Your task to perform on an android device: Go to Yahoo.com Image 0: 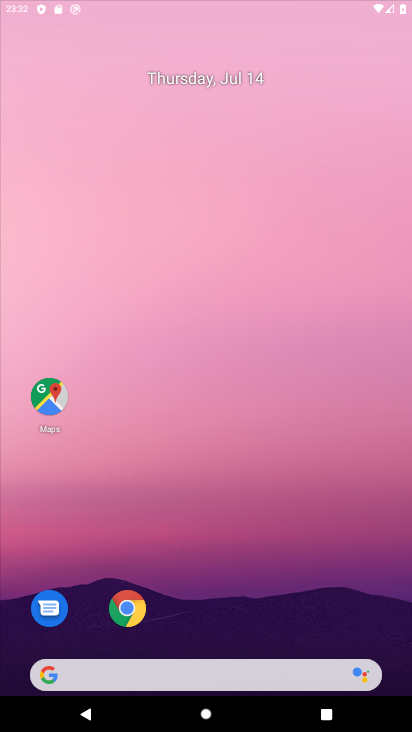
Step 0: click (88, 663)
Your task to perform on an android device: Go to Yahoo.com Image 1: 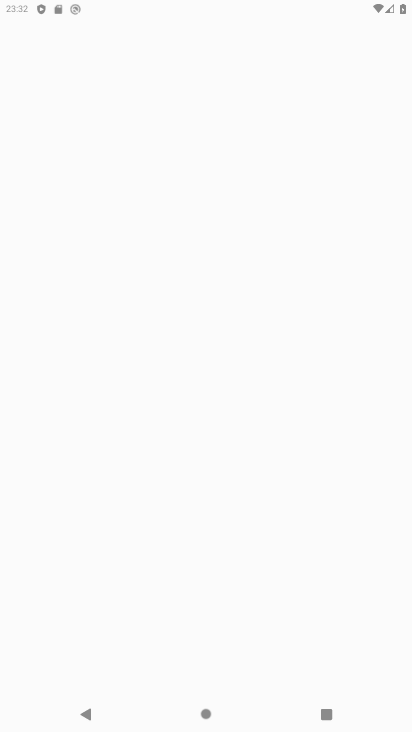
Step 1: click (91, 667)
Your task to perform on an android device: Go to Yahoo.com Image 2: 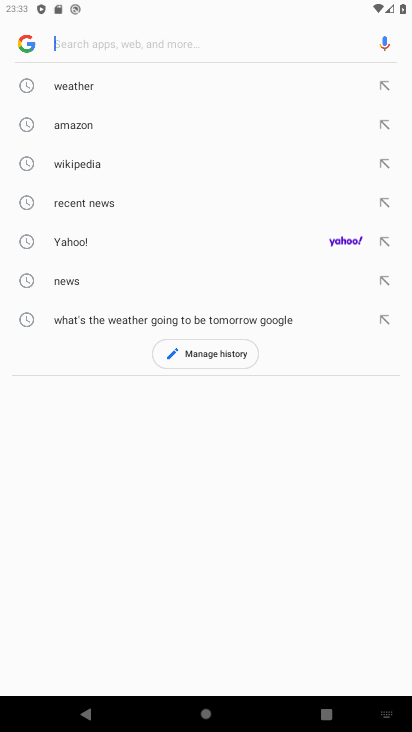
Step 2: type "Yahoo.com"
Your task to perform on an android device: Go to Yahoo.com Image 3: 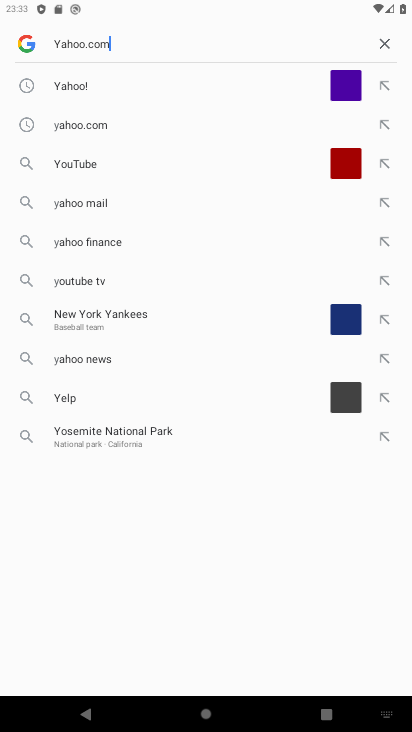
Step 3: type ""
Your task to perform on an android device: Go to Yahoo.com Image 4: 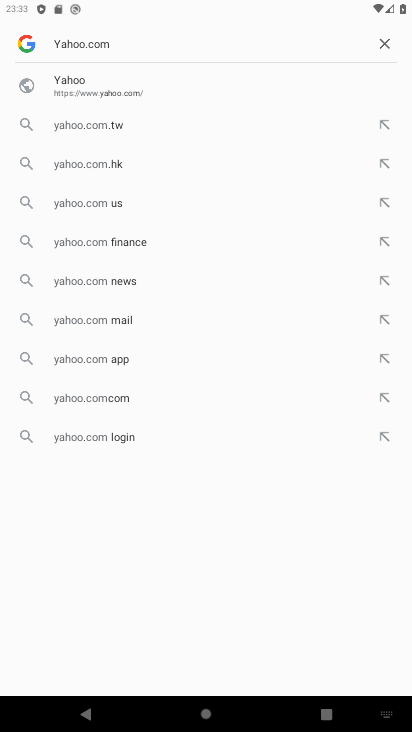
Step 4: click (86, 99)
Your task to perform on an android device: Go to Yahoo.com Image 5: 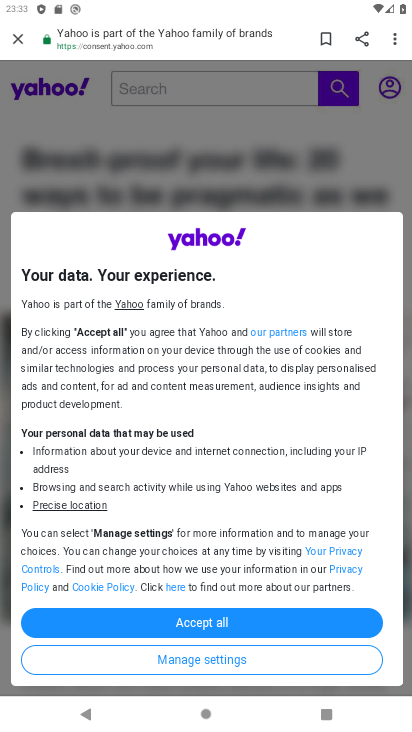
Step 5: task complete